Your task to perform on an android device: Open the map Image 0: 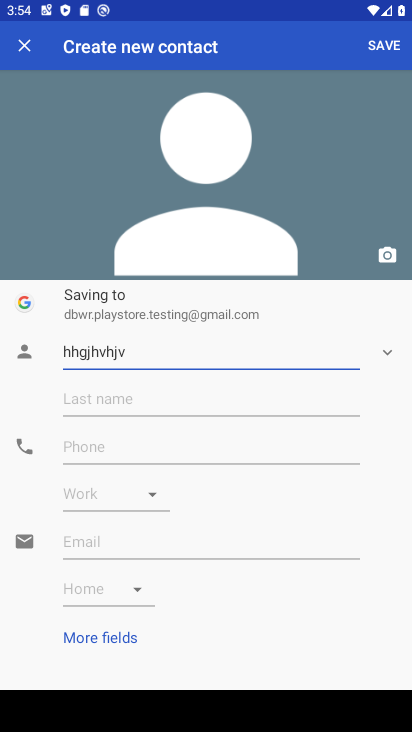
Step 0: press home button
Your task to perform on an android device: Open the map Image 1: 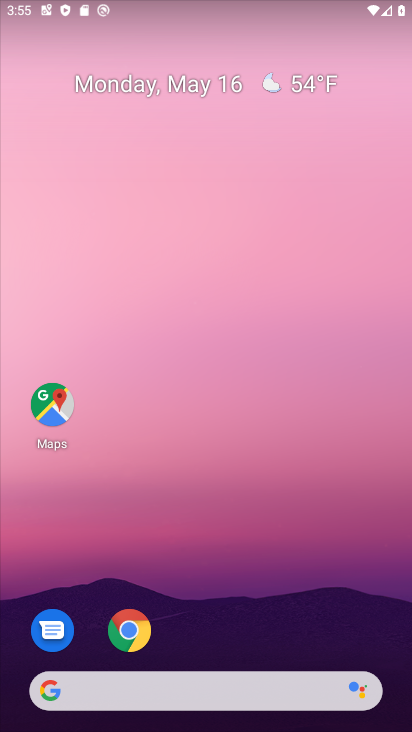
Step 1: click (67, 417)
Your task to perform on an android device: Open the map Image 2: 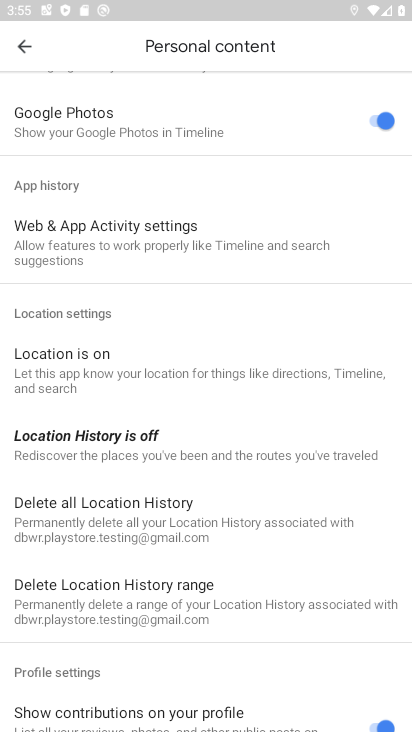
Step 2: click (34, 58)
Your task to perform on an android device: Open the map Image 3: 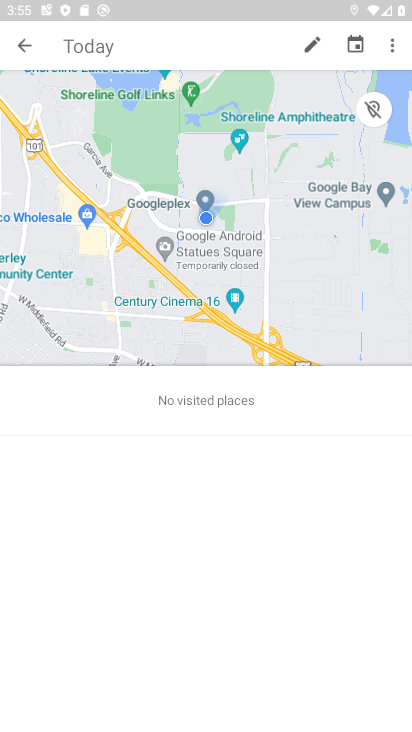
Step 3: task complete